Your task to perform on an android device: turn off picture-in-picture Image 0: 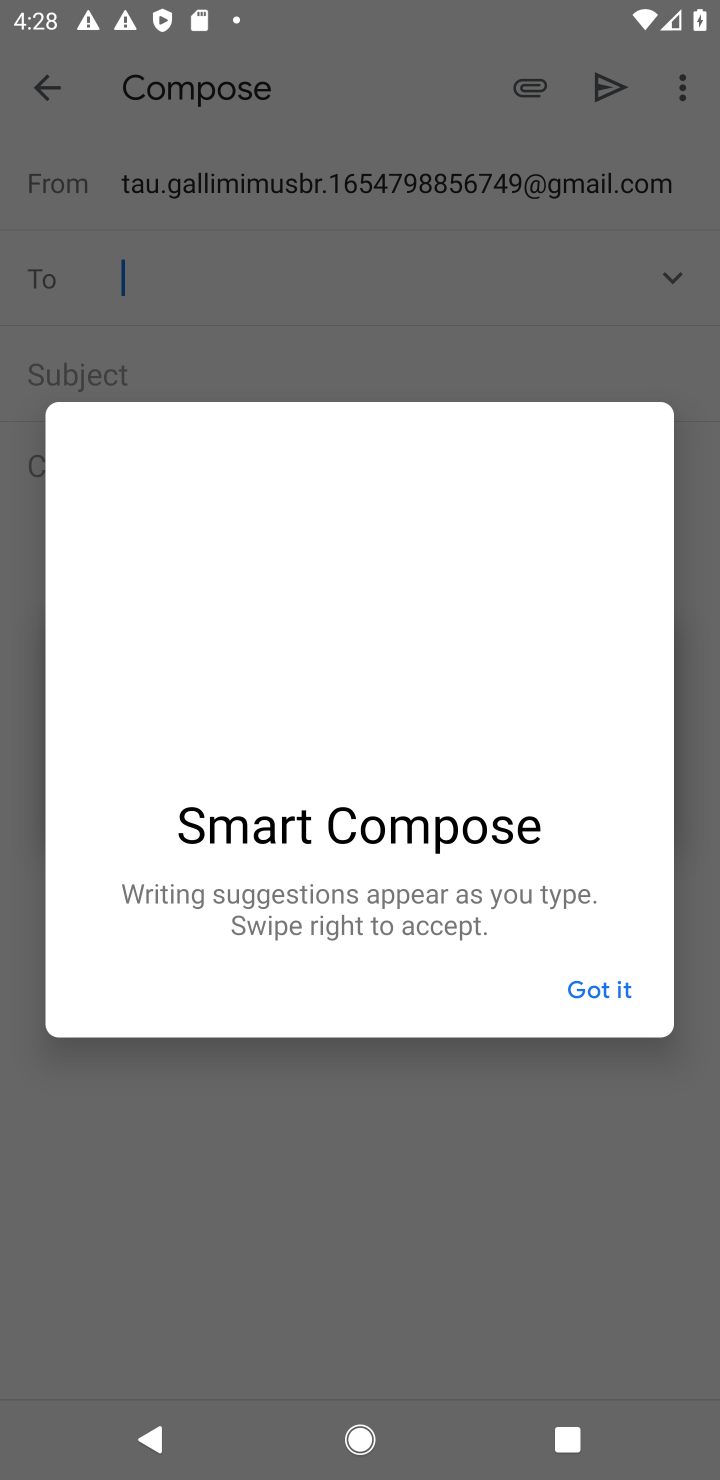
Step 0: press home button
Your task to perform on an android device: turn off picture-in-picture Image 1: 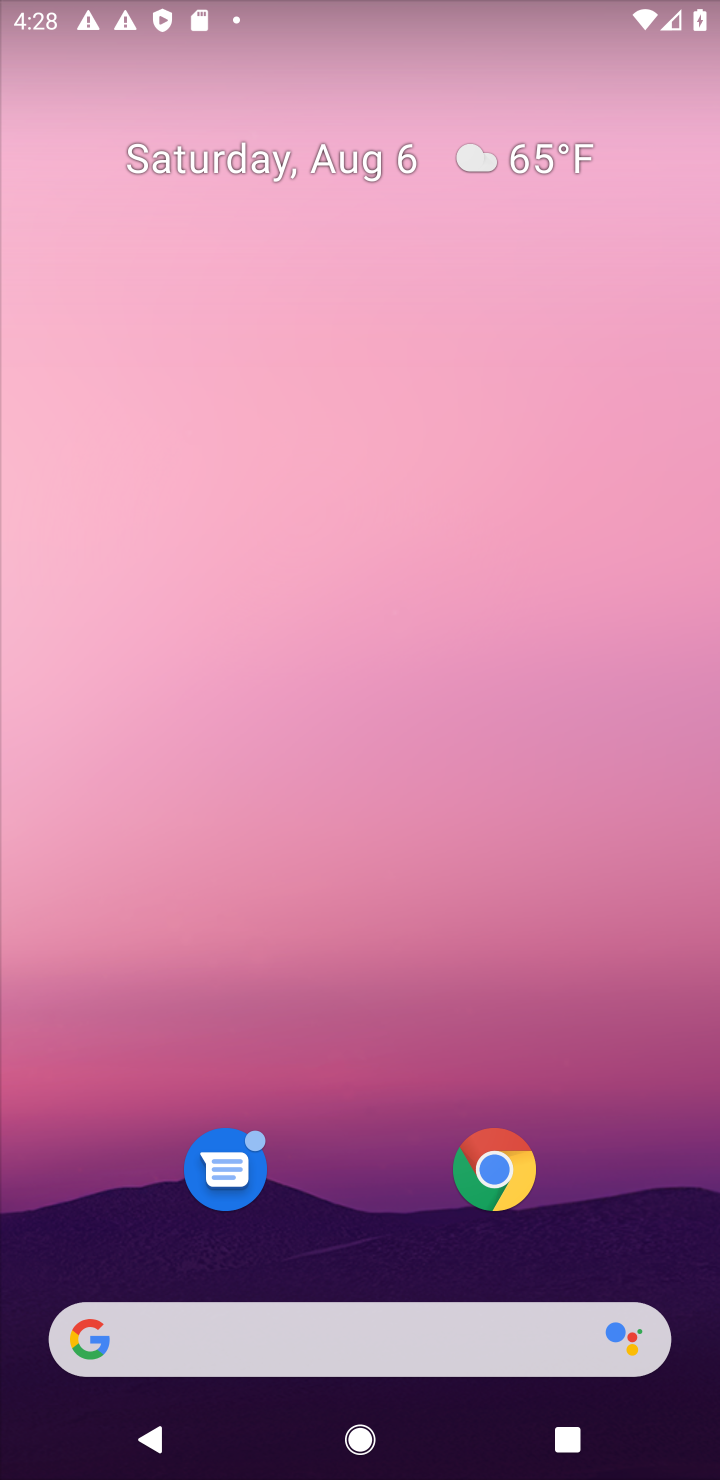
Step 1: click (487, 1153)
Your task to perform on an android device: turn off picture-in-picture Image 2: 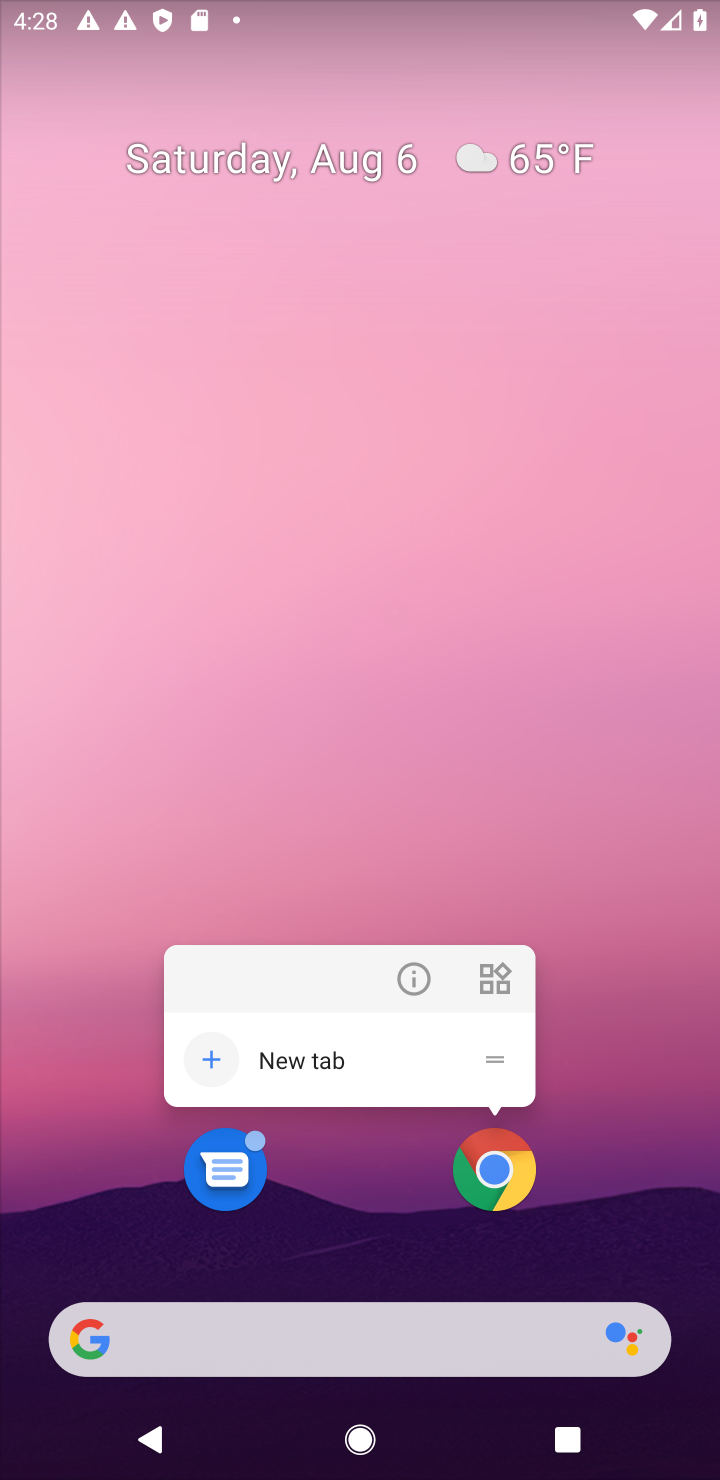
Step 2: click (420, 973)
Your task to perform on an android device: turn off picture-in-picture Image 3: 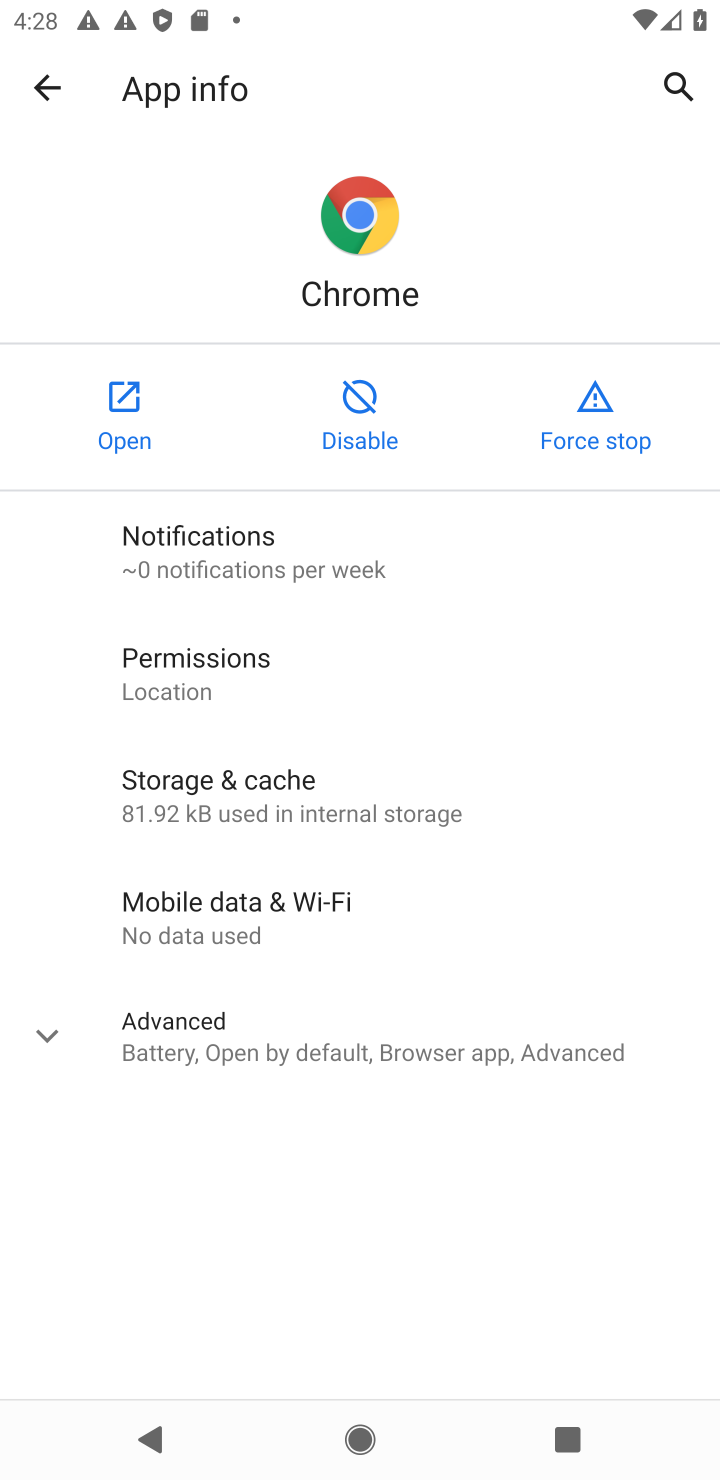
Step 3: click (389, 1022)
Your task to perform on an android device: turn off picture-in-picture Image 4: 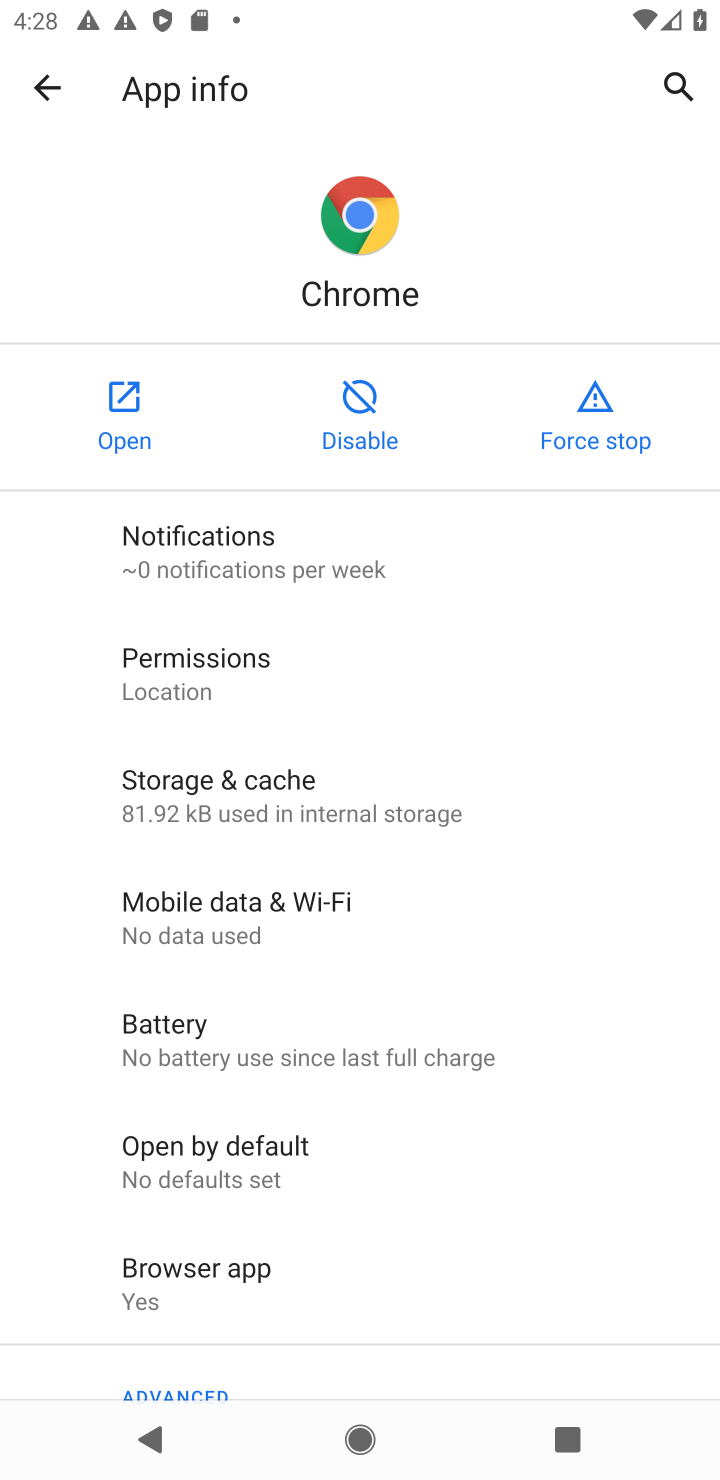
Step 4: drag from (381, 1174) to (353, 924)
Your task to perform on an android device: turn off picture-in-picture Image 5: 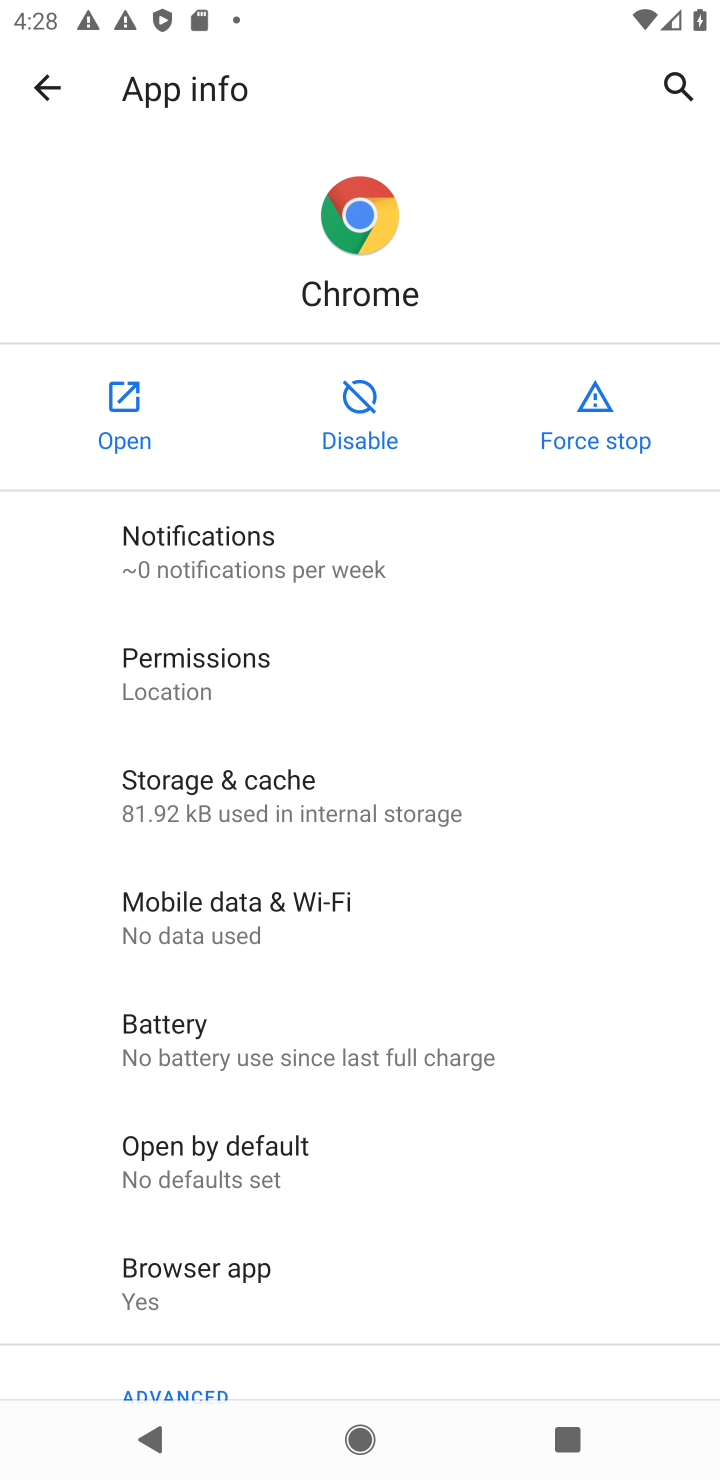
Step 5: drag from (339, 1344) to (291, 851)
Your task to perform on an android device: turn off picture-in-picture Image 6: 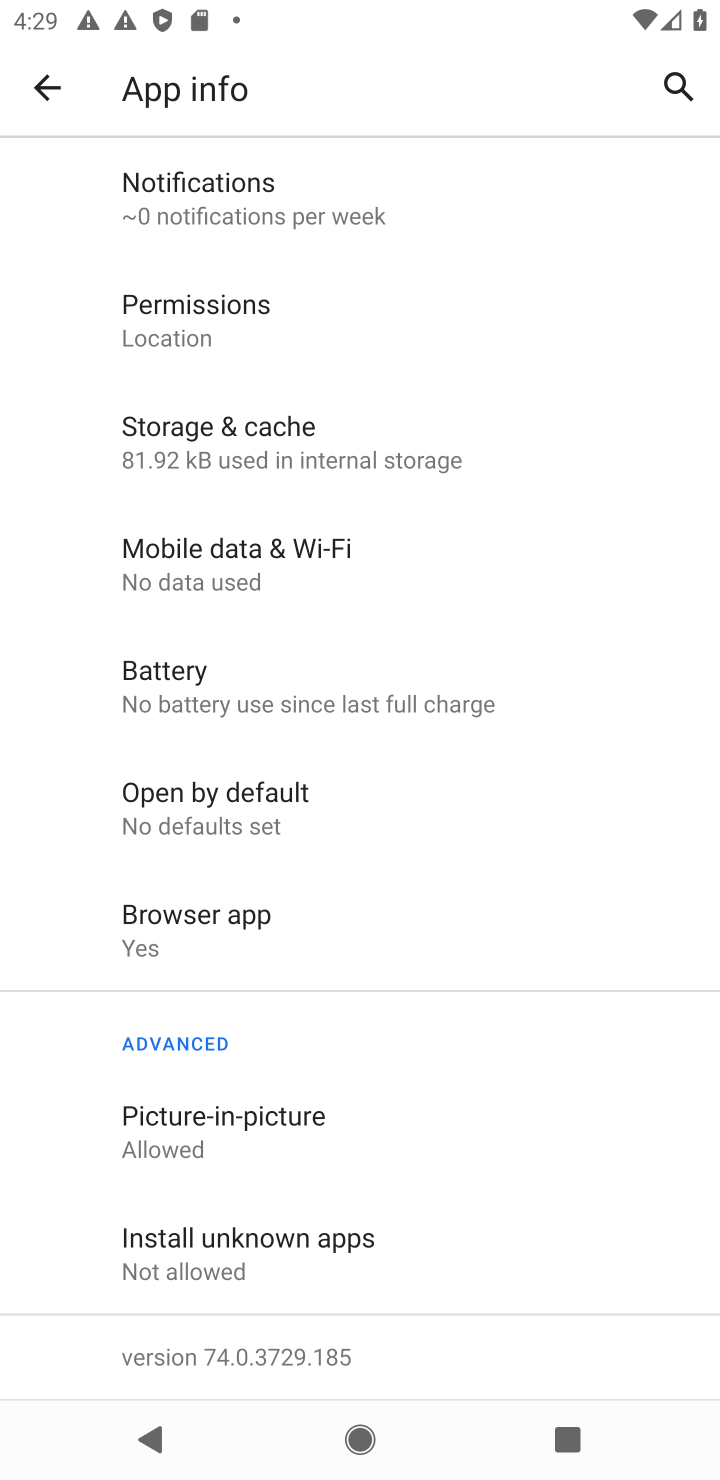
Step 6: click (246, 1154)
Your task to perform on an android device: turn off picture-in-picture Image 7: 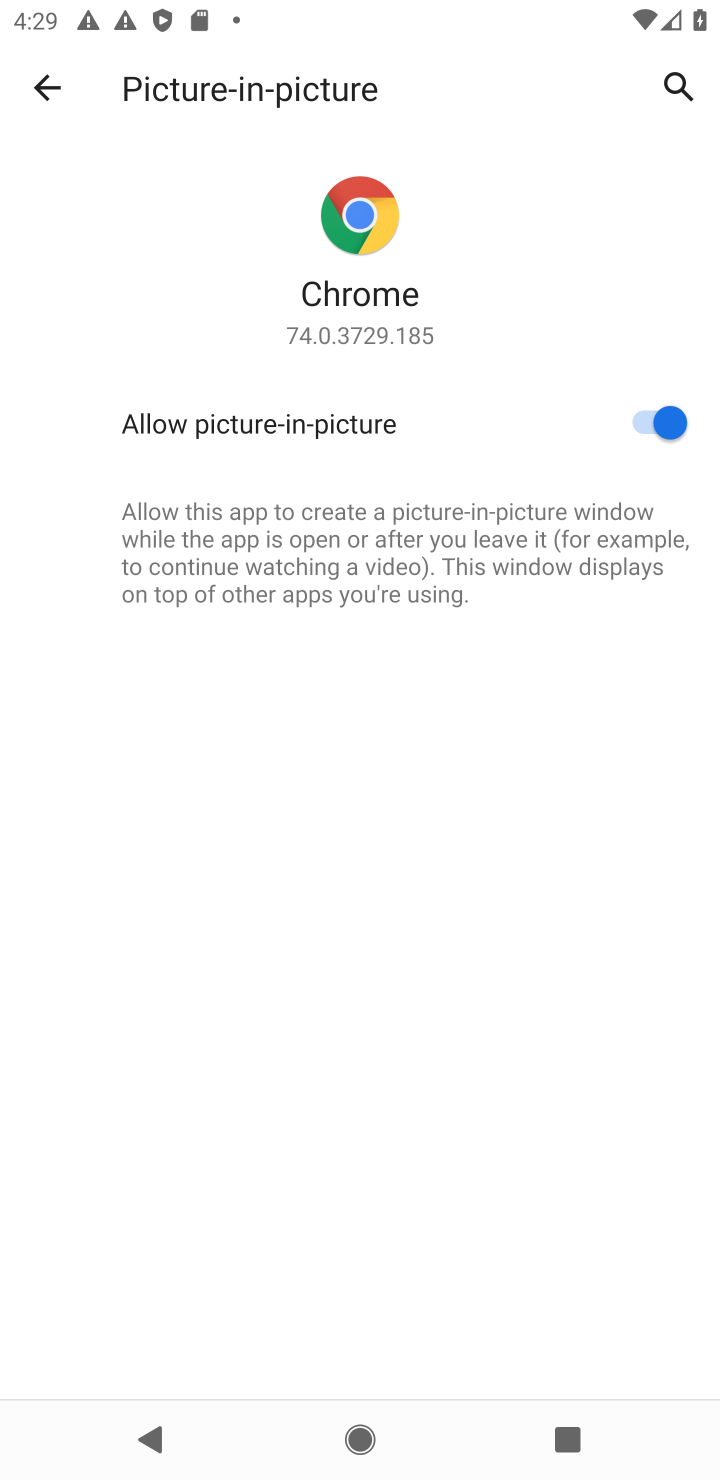
Step 7: click (686, 420)
Your task to perform on an android device: turn off picture-in-picture Image 8: 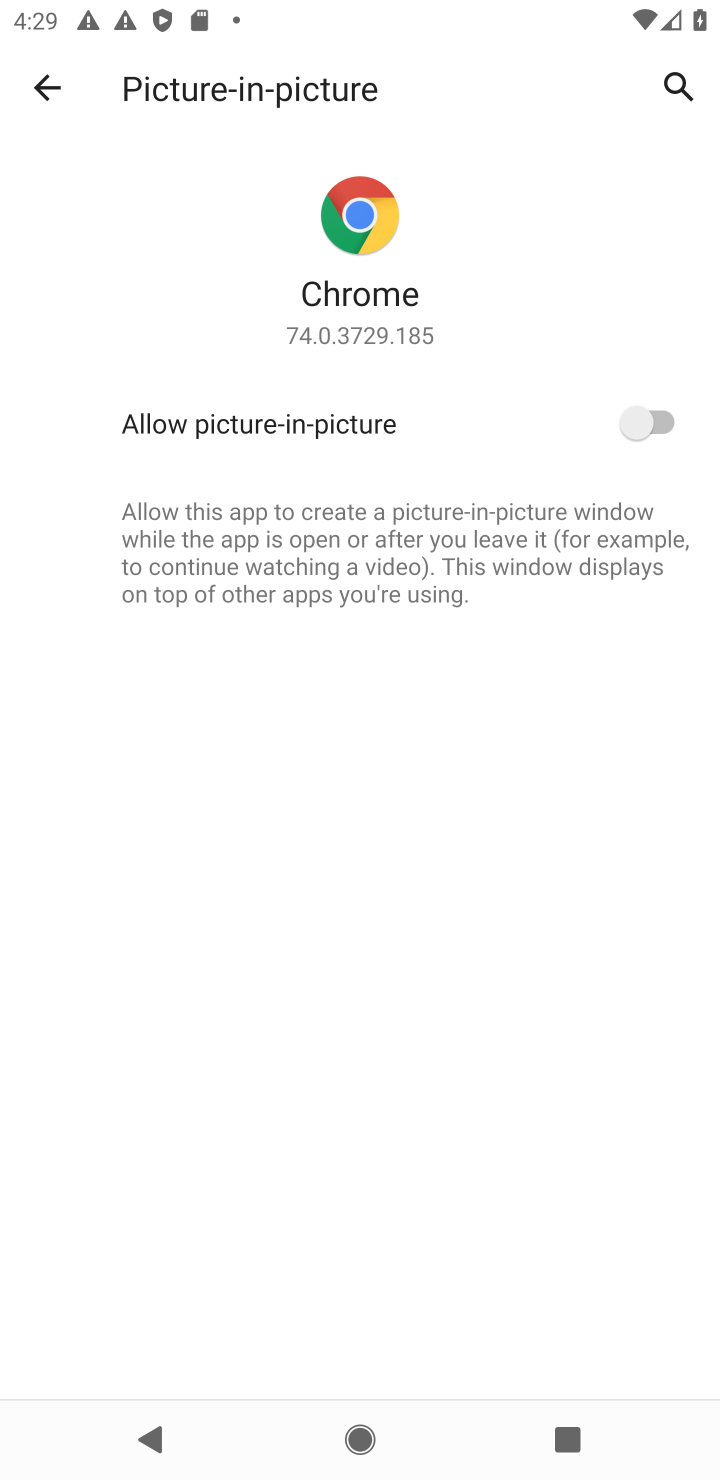
Step 8: task complete